Your task to perform on an android device: open chrome privacy settings Image 0: 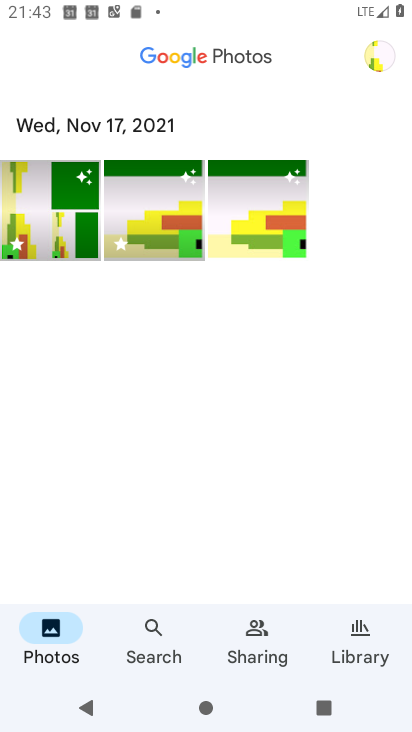
Step 0: drag from (139, 592) to (350, 182)
Your task to perform on an android device: open chrome privacy settings Image 1: 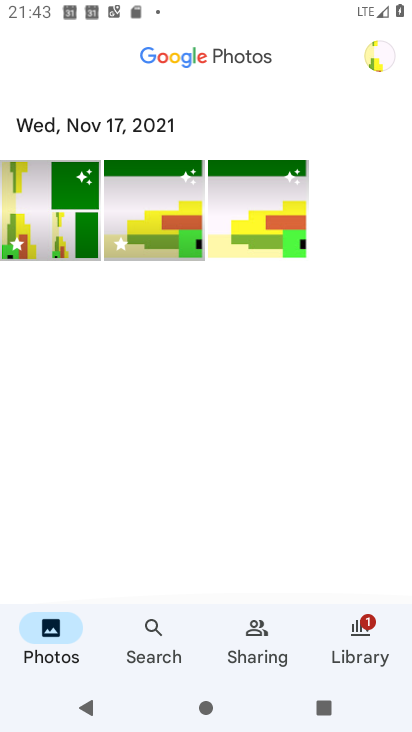
Step 1: press home button
Your task to perform on an android device: open chrome privacy settings Image 2: 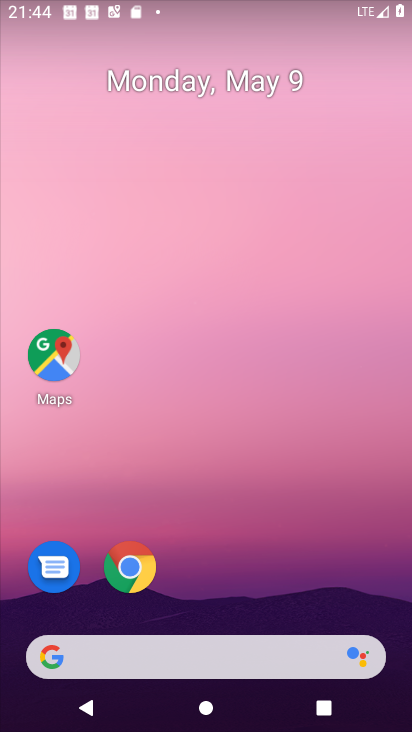
Step 2: drag from (206, 604) to (292, 267)
Your task to perform on an android device: open chrome privacy settings Image 3: 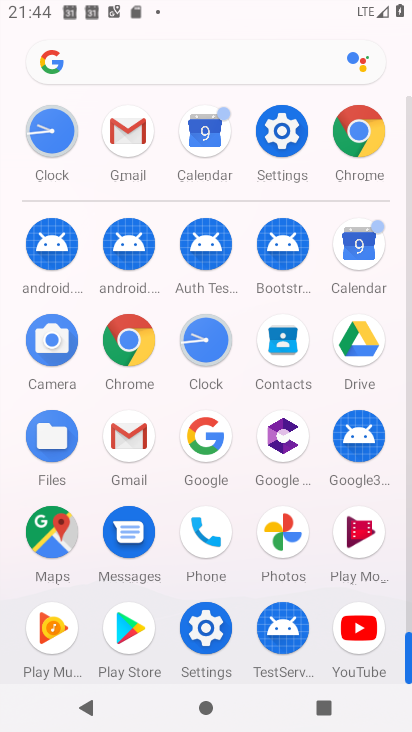
Step 3: click (364, 129)
Your task to perform on an android device: open chrome privacy settings Image 4: 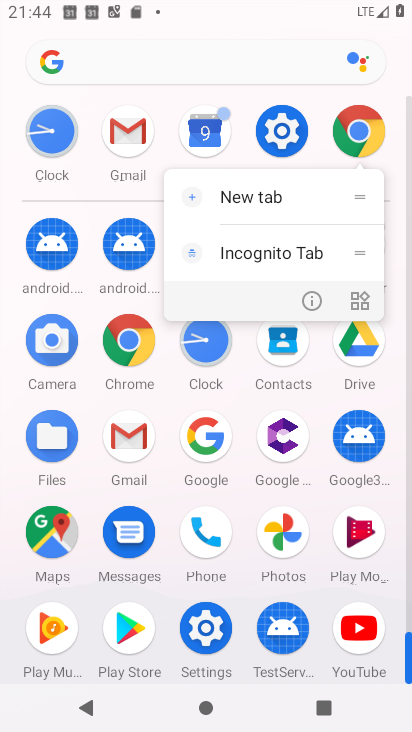
Step 4: click (315, 296)
Your task to perform on an android device: open chrome privacy settings Image 5: 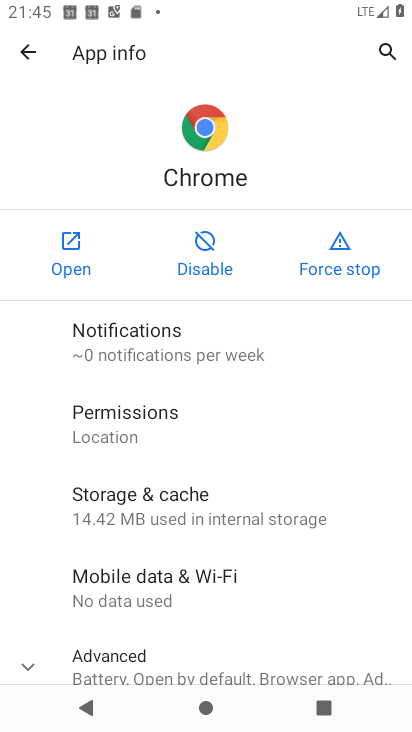
Step 5: click (56, 259)
Your task to perform on an android device: open chrome privacy settings Image 6: 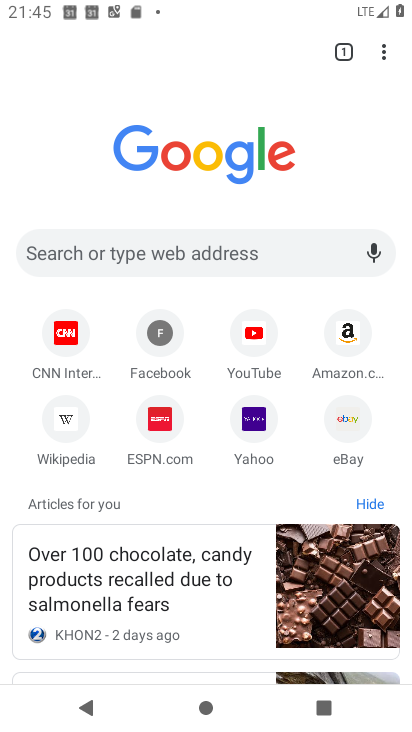
Step 6: drag from (191, 597) to (308, 137)
Your task to perform on an android device: open chrome privacy settings Image 7: 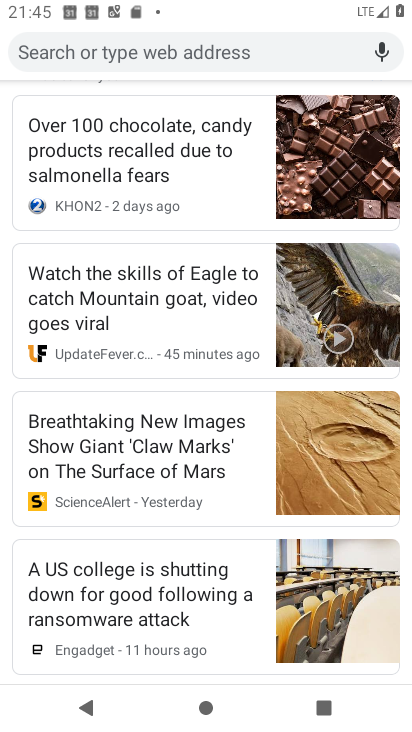
Step 7: drag from (203, 305) to (146, 595)
Your task to perform on an android device: open chrome privacy settings Image 8: 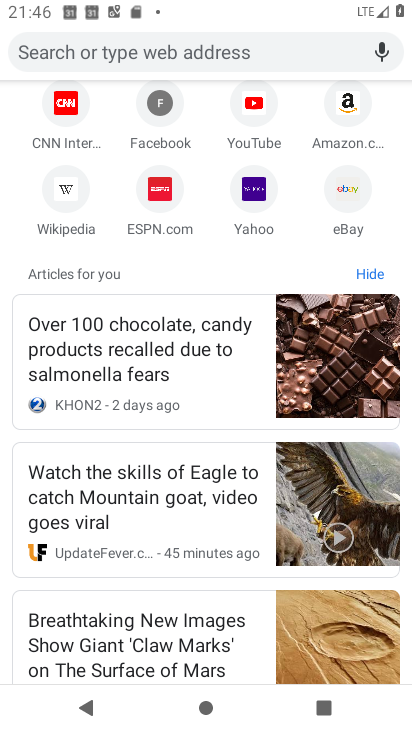
Step 8: drag from (204, 614) to (309, 245)
Your task to perform on an android device: open chrome privacy settings Image 9: 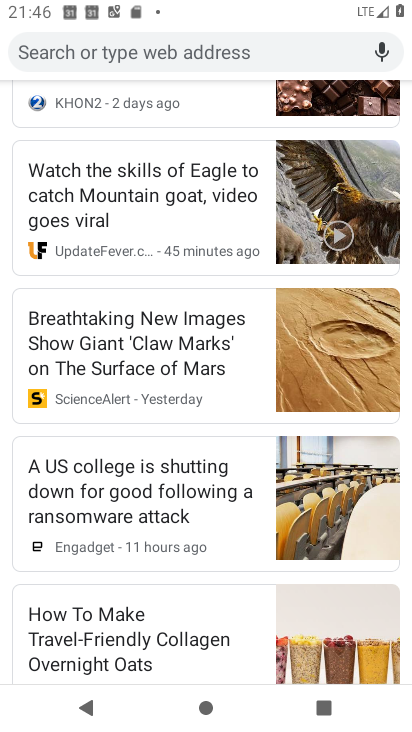
Step 9: drag from (234, 566) to (319, 685)
Your task to perform on an android device: open chrome privacy settings Image 10: 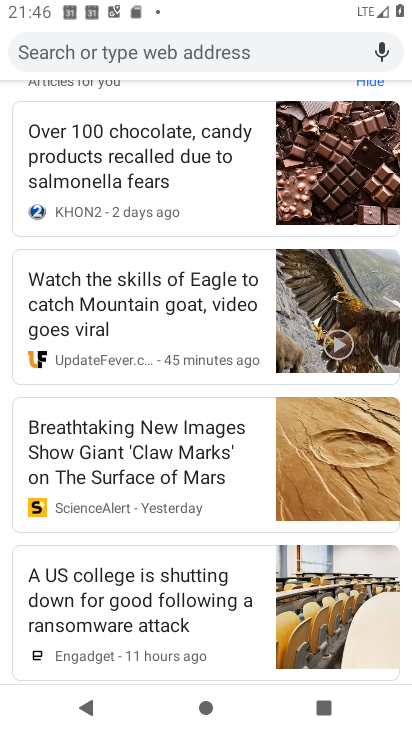
Step 10: drag from (231, 226) to (373, 540)
Your task to perform on an android device: open chrome privacy settings Image 11: 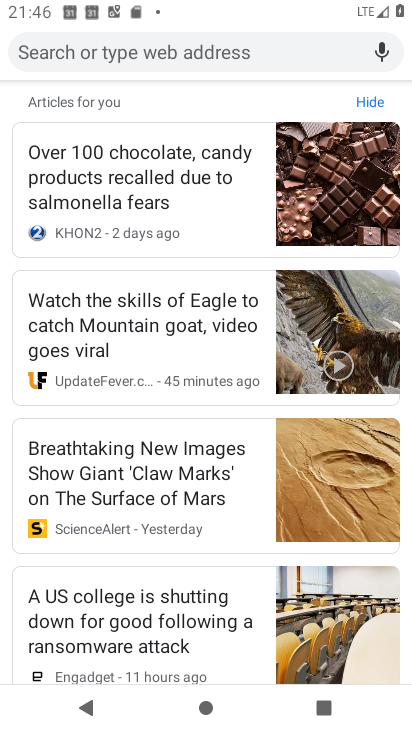
Step 11: drag from (231, 230) to (191, 481)
Your task to perform on an android device: open chrome privacy settings Image 12: 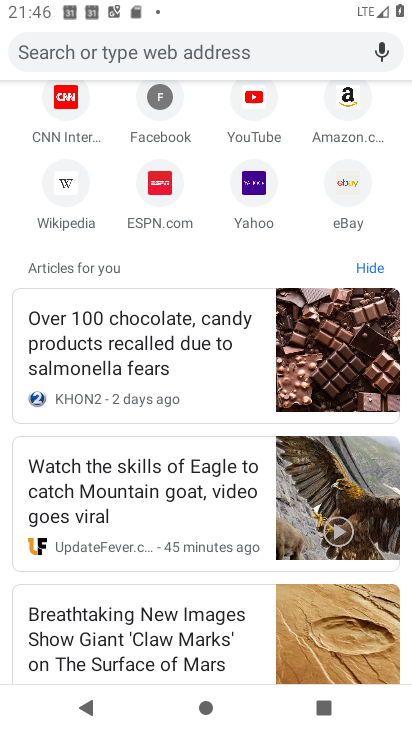
Step 12: drag from (239, 199) to (336, 621)
Your task to perform on an android device: open chrome privacy settings Image 13: 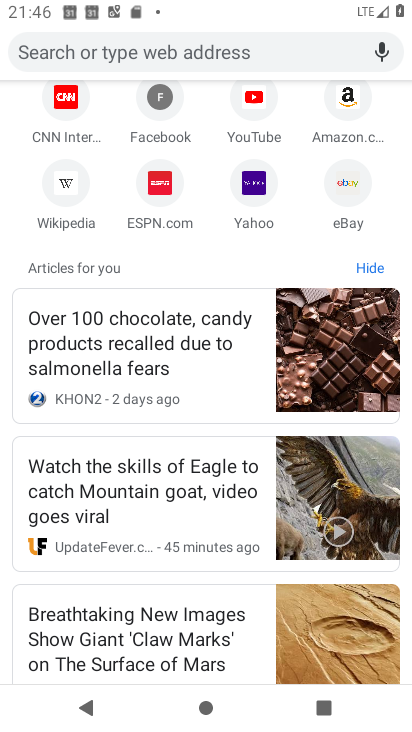
Step 13: drag from (222, 159) to (327, 668)
Your task to perform on an android device: open chrome privacy settings Image 14: 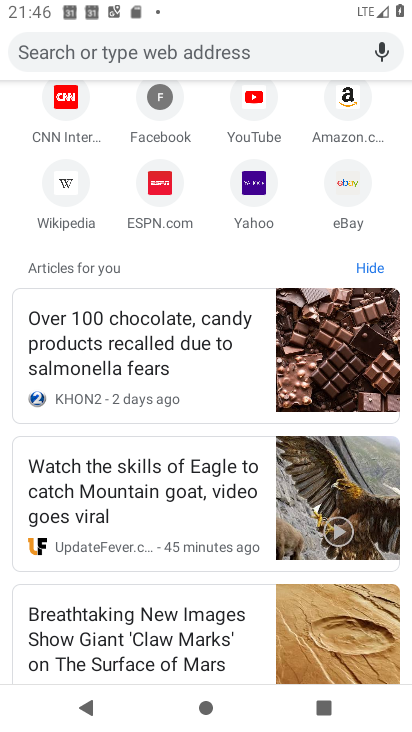
Step 14: drag from (270, 206) to (364, 614)
Your task to perform on an android device: open chrome privacy settings Image 15: 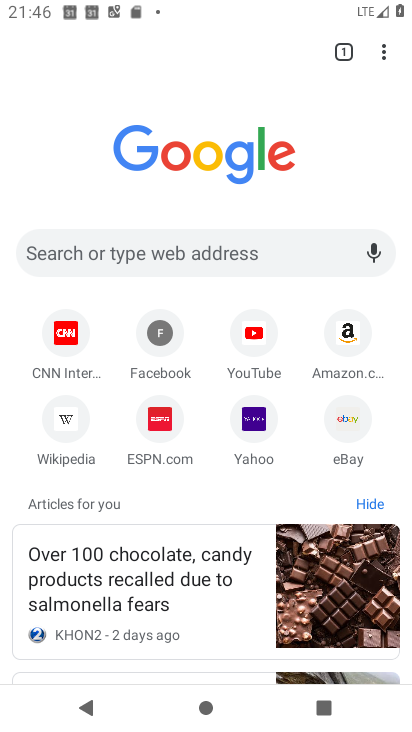
Step 15: click (383, 45)
Your task to perform on an android device: open chrome privacy settings Image 16: 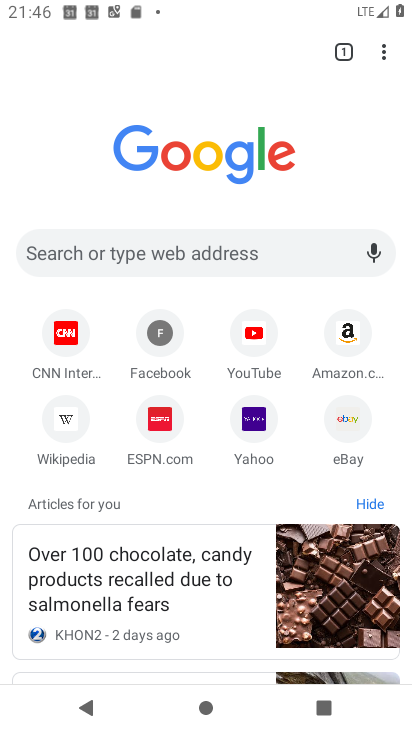
Step 16: drag from (377, 48) to (245, 449)
Your task to perform on an android device: open chrome privacy settings Image 17: 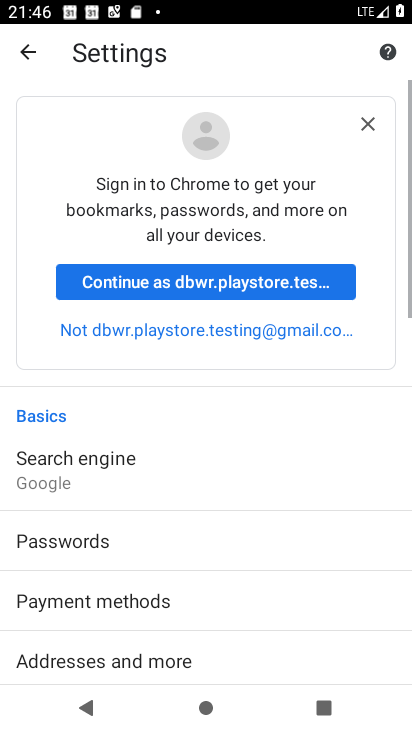
Step 17: drag from (195, 574) to (324, 4)
Your task to perform on an android device: open chrome privacy settings Image 18: 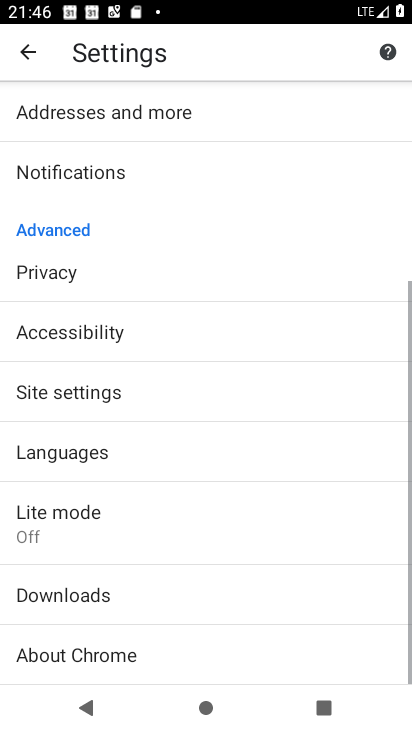
Step 18: click (141, 281)
Your task to perform on an android device: open chrome privacy settings Image 19: 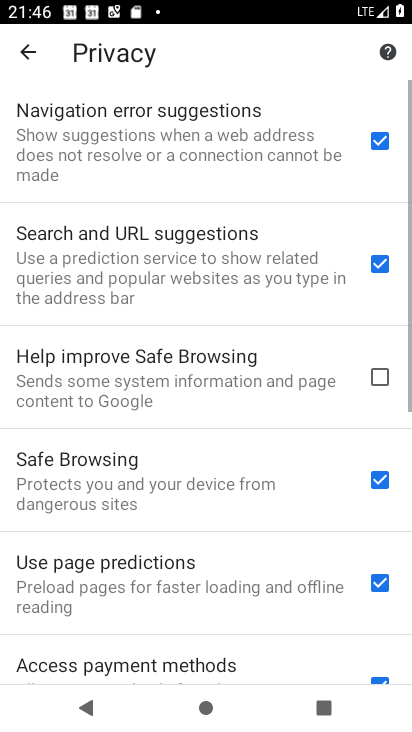
Step 19: task complete